Your task to perform on an android device: empty trash in google photos Image 0: 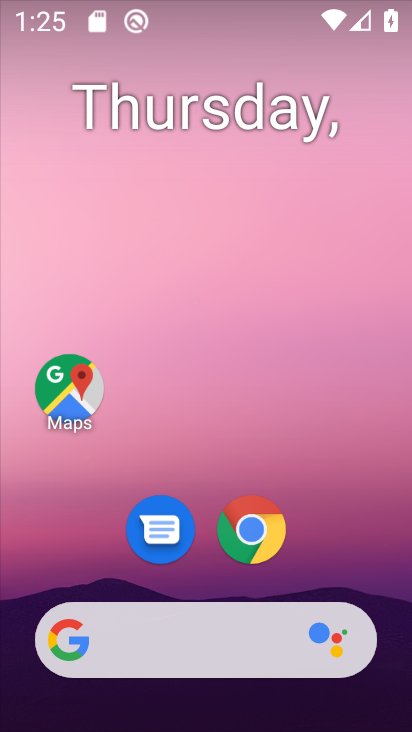
Step 0: drag from (332, 526) to (300, 131)
Your task to perform on an android device: empty trash in google photos Image 1: 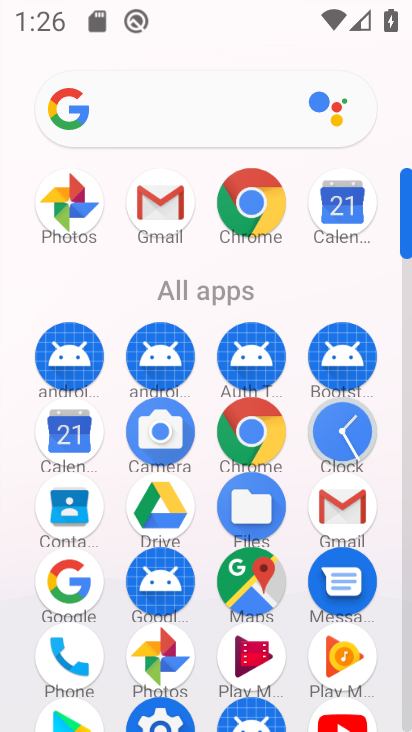
Step 1: click (166, 656)
Your task to perform on an android device: empty trash in google photos Image 2: 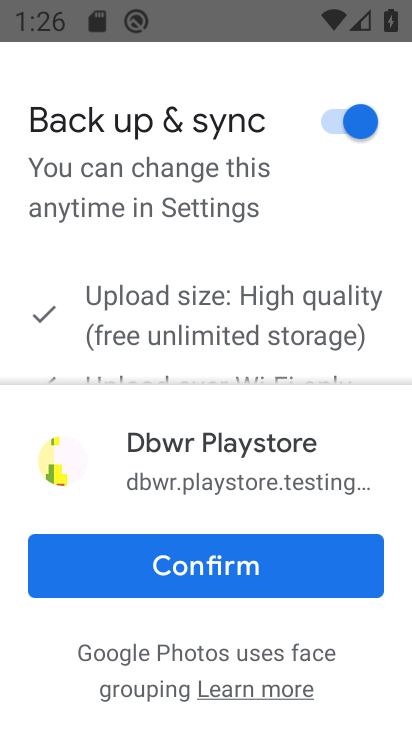
Step 2: click (266, 572)
Your task to perform on an android device: empty trash in google photos Image 3: 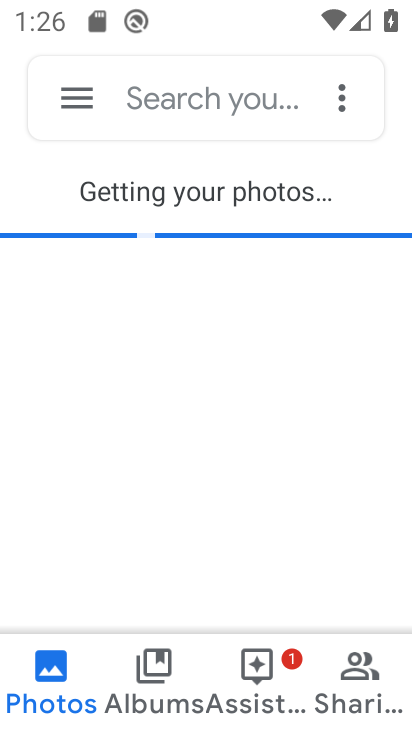
Step 3: click (67, 91)
Your task to perform on an android device: empty trash in google photos Image 4: 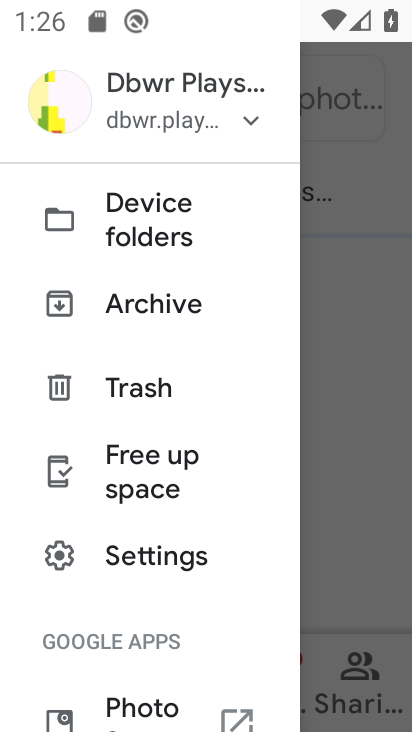
Step 4: click (124, 390)
Your task to perform on an android device: empty trash in google photos Image 5: 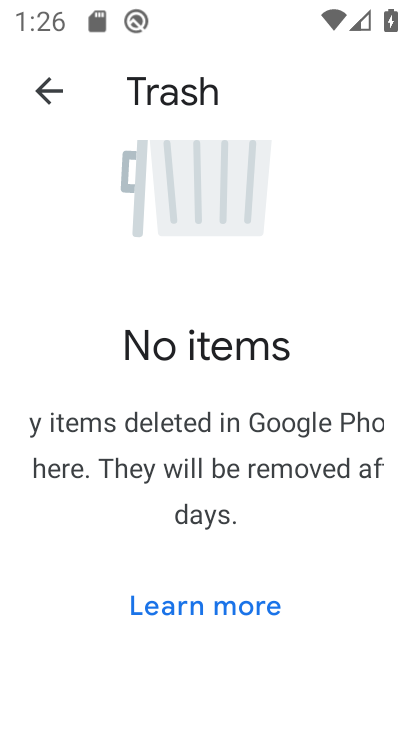
Step 5: task complete